Your task to perform on an android device: Open eBay Image 0: 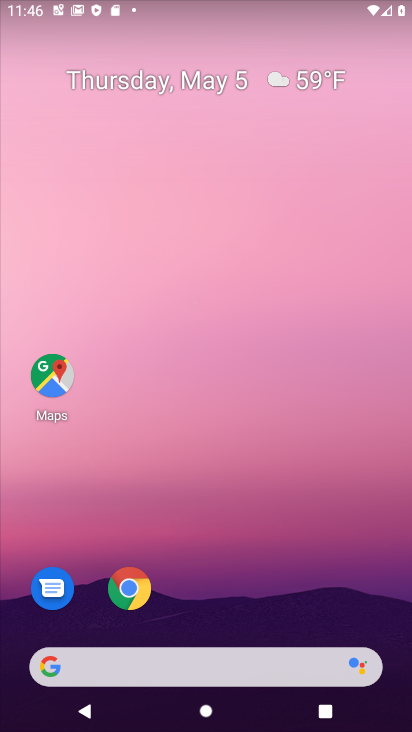
Step 0: drag from (156, 667) to (331, 24)
Your task to perform on an android device: Open eBay Image 1: 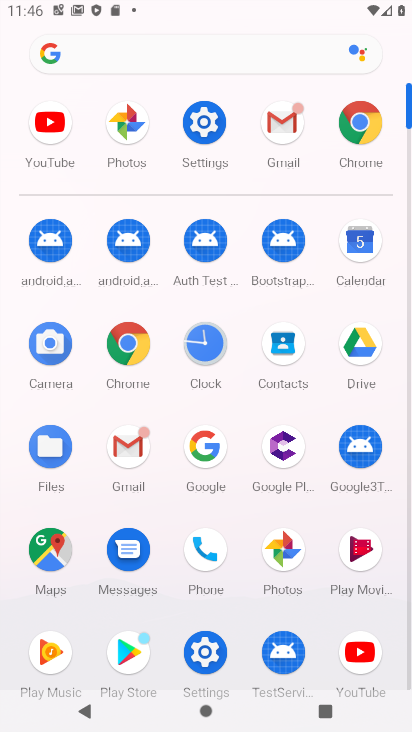
Step 1: click (349, 120)
Your task to perform on an android device: Open eBay Image 2: 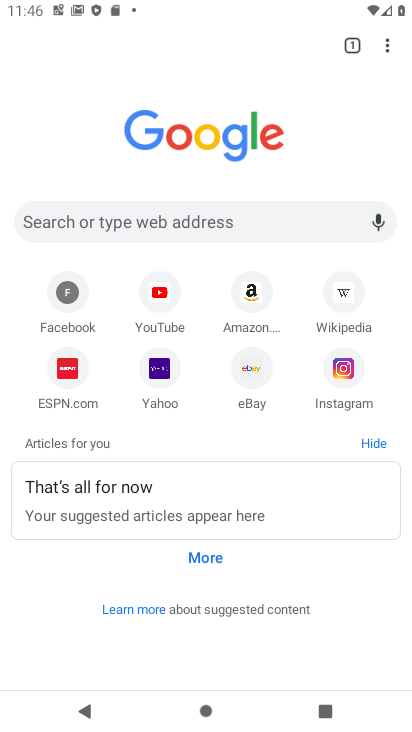
Step 2: click (243, 372)
Your task to perform on an android device: Open eBay Image 3: 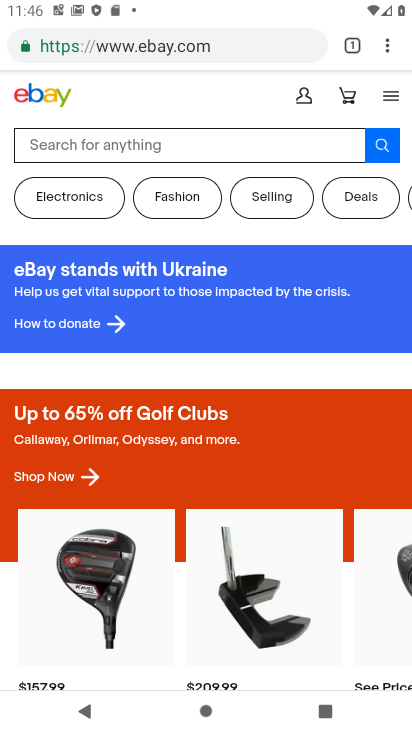
Step 3: task complete